Your task to perform on an android device: Open battery settings Image 0: 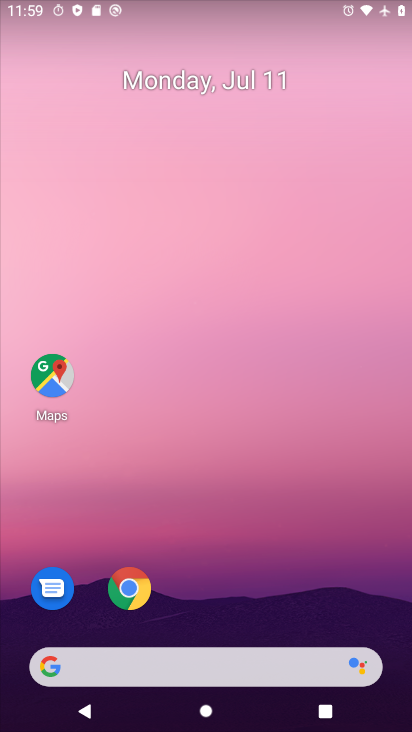
Step 0: drag from (181, 668) to (199, 35)
Your task to perform on an android device: Open battery settings Image 1: 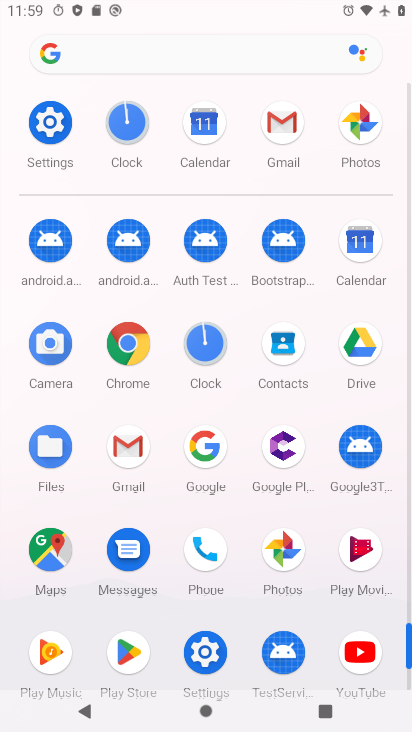
Step 1: click (44, 130)
Your task to perform on an android device: Open battery settings Image 2: 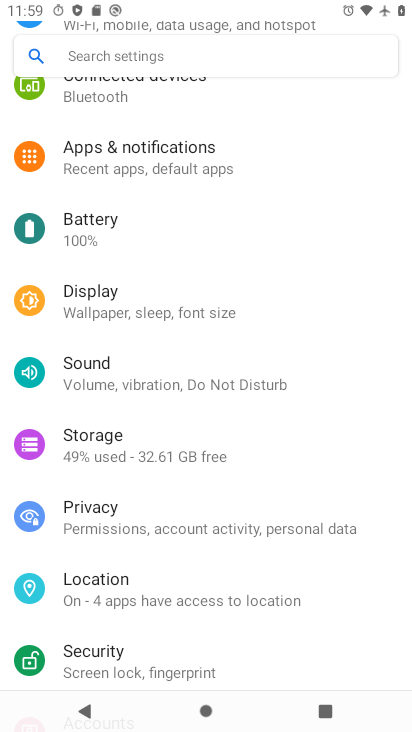
Step 2: click (90, 225)
Your task to perform on an android device: Open battery settings Image 3: 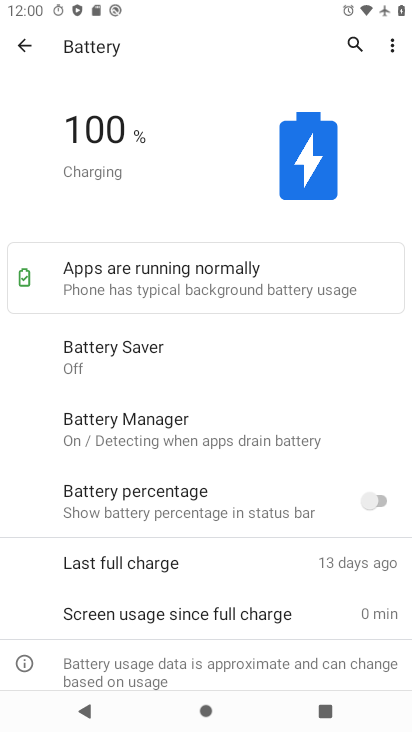
Step 3: task complete